Your task to perform on an android device: see sites visited before in the chrome app Image 0: 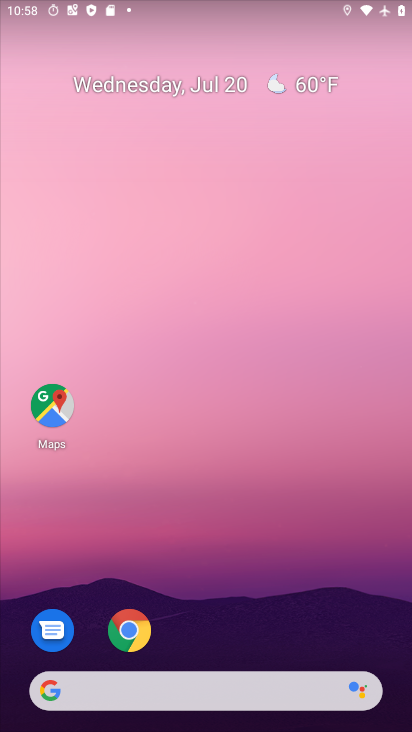
Step 0: click (130, 631)
Your task to perform on an android device: see sites visited before in the chrome app Image 1: 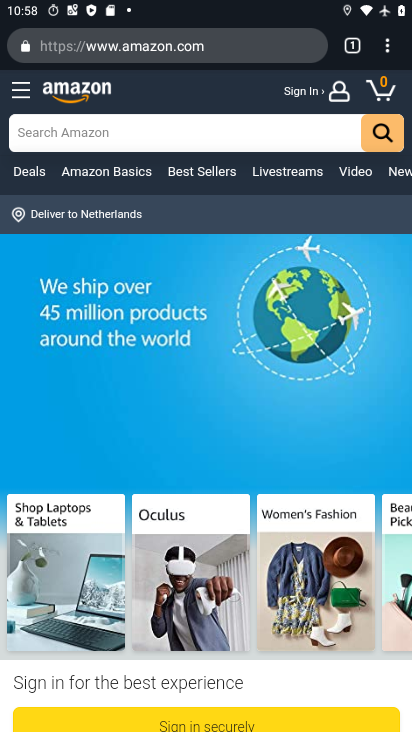
Step 1: click (383, 42)
Your task to perform on an android device: see sites visited before in the chrome app Image 2: 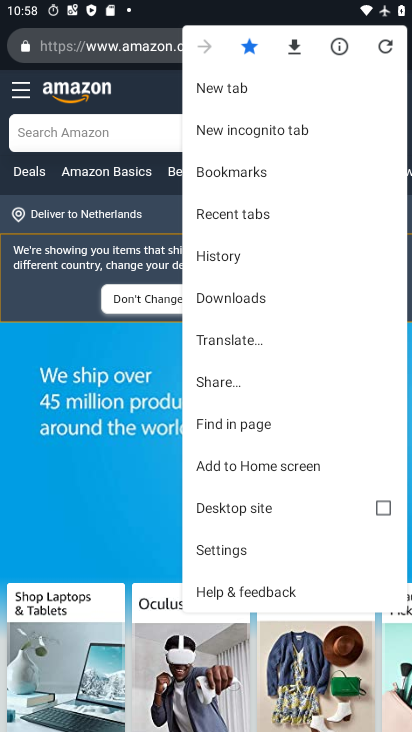
Step 2: click (255, 216)
Your task to perform on an android device: see sites visited before in the chrome app Image 3: 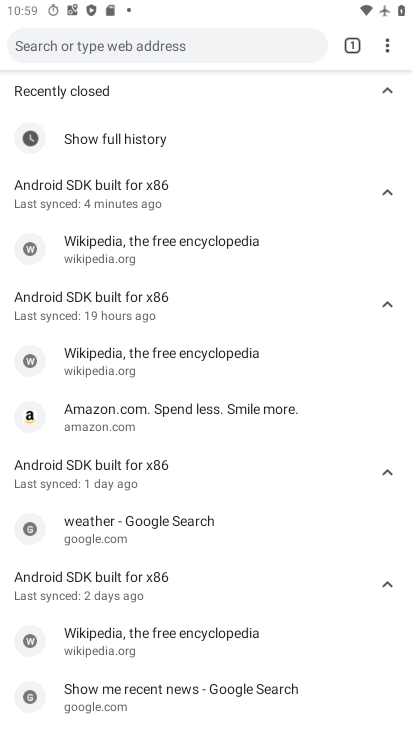
Step 3: task complete